Your task to perform on an android device: Search for seafood restaurants on Google Maps Image 0: 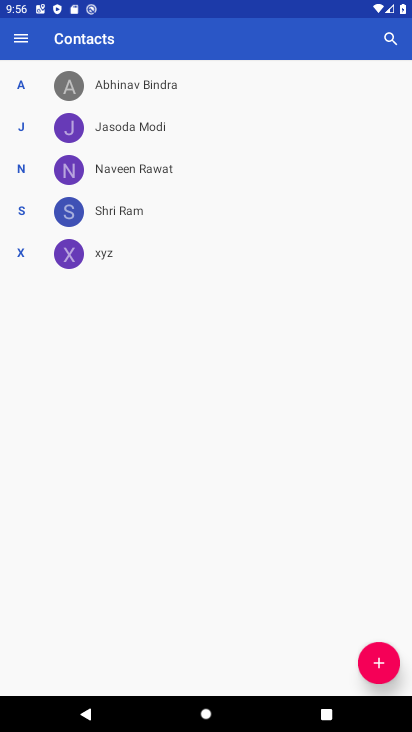
Step 0: press home button
Your task to perform on an android device: Search for seafood restaurants on Google Maps Image 1: 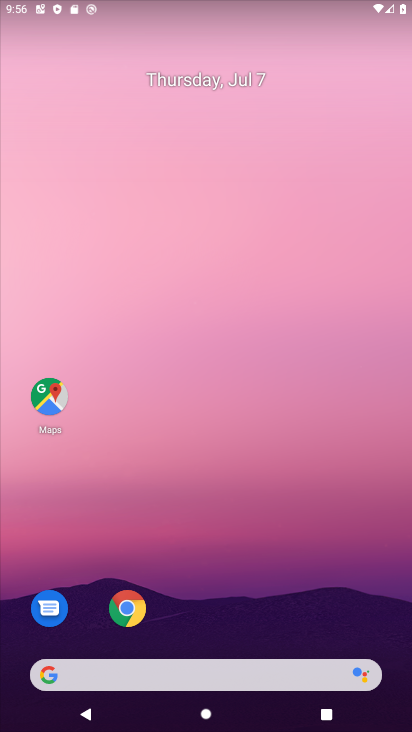
Step 1: click (49, 389)
Your task to perform on an android device: Search for seafood restaurants on Google Maps Image 2: 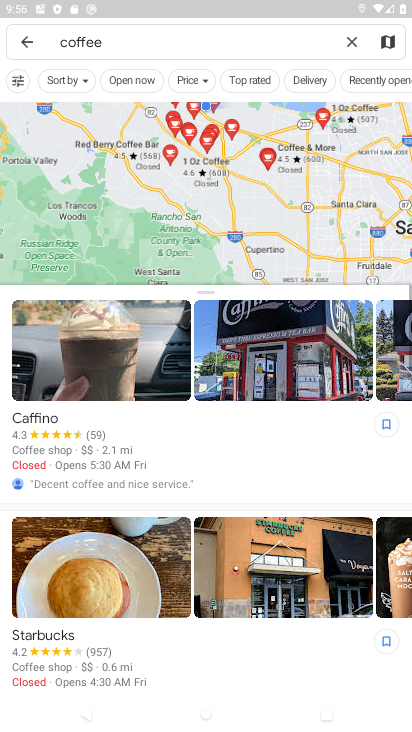
Step 2: click (347, 36)
Your task to perform on an android device: Search for seafood restaurants on Google Maps Image 3: 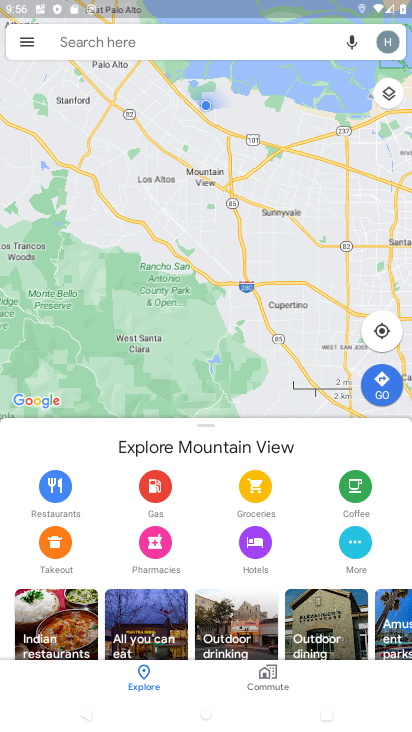
Step 3: click (240, 38)
Your task to perform on an android device: Search for seafood restaurants on Google Maps Image 4: 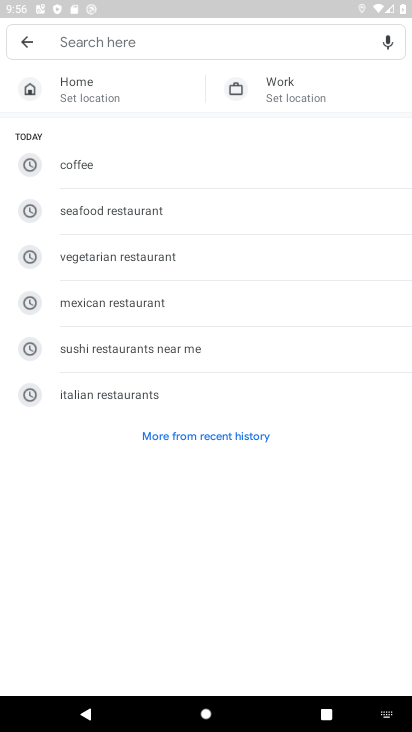
Step 4: click (128, 202)
Your task to perform on an android device: Search for seafood restaurants on Google Maps Image 5: 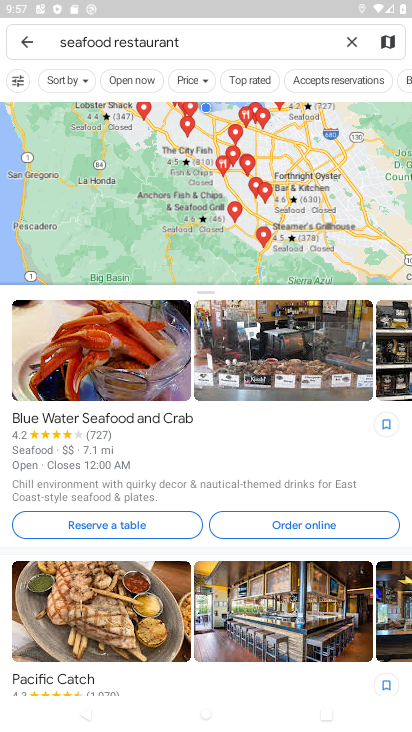
Step 5: task complete